Your task to perform on an android device: Search for the best rated headphones on Amazon Image 0: 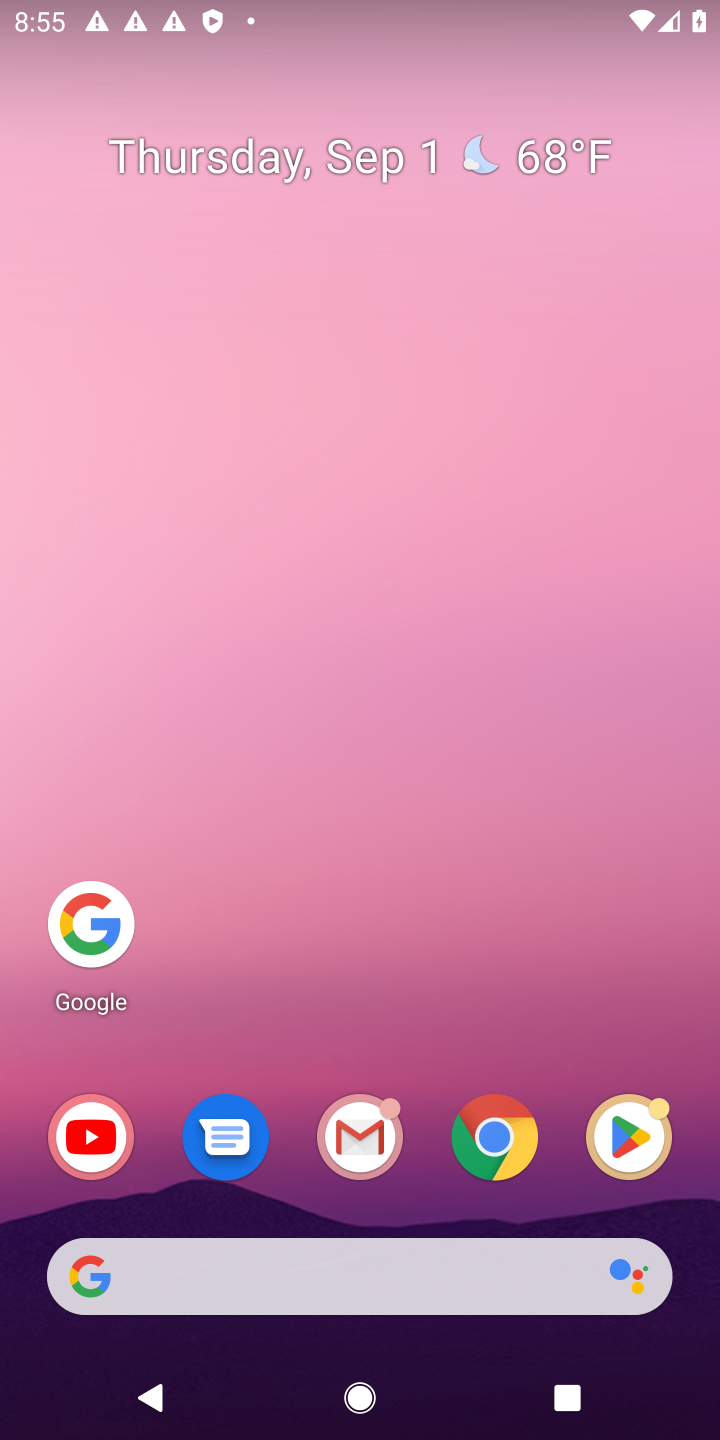
Step 0: click (95, 921)
Your task to perform on an android device: Search for the best rated headphones on Amazon Image 1: 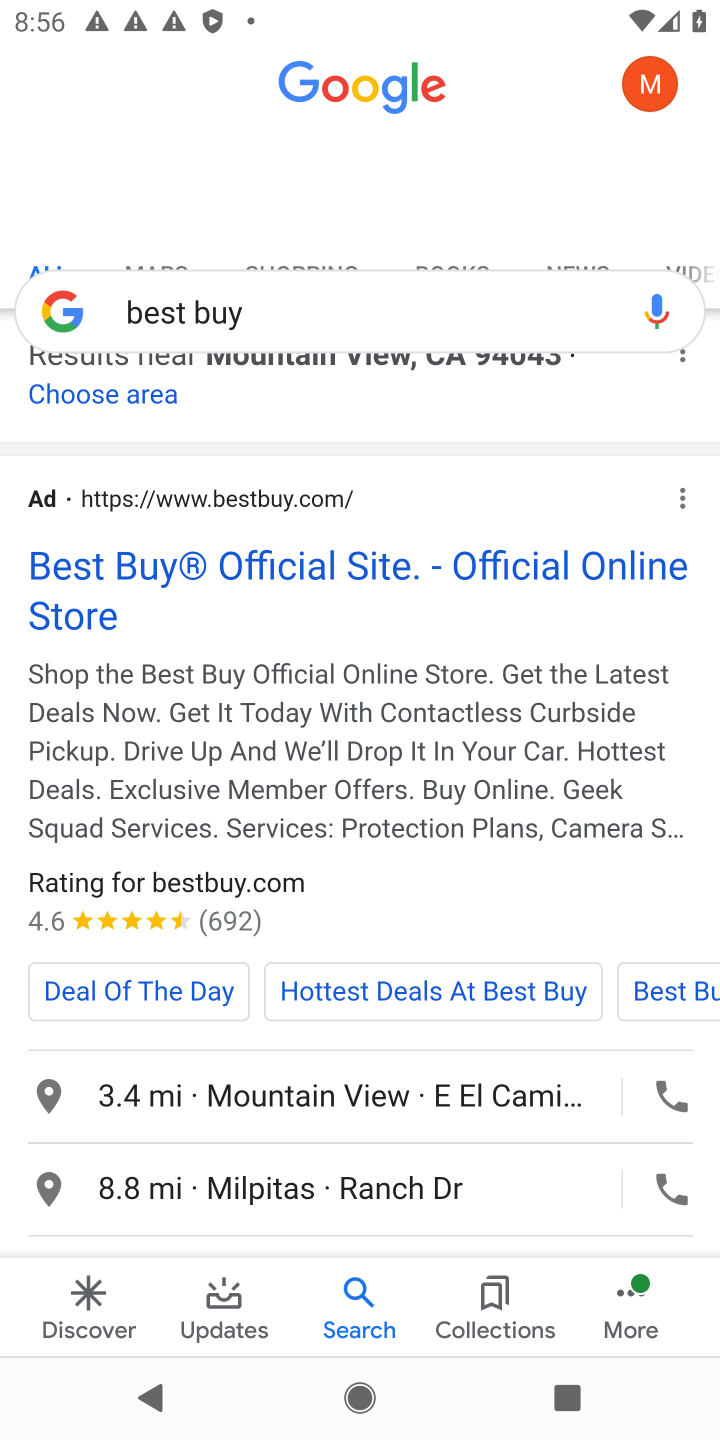
Step 1: click (67, 307)
Your task to perform on an android device: Search for the best rated headphones on Amazon Image 2: 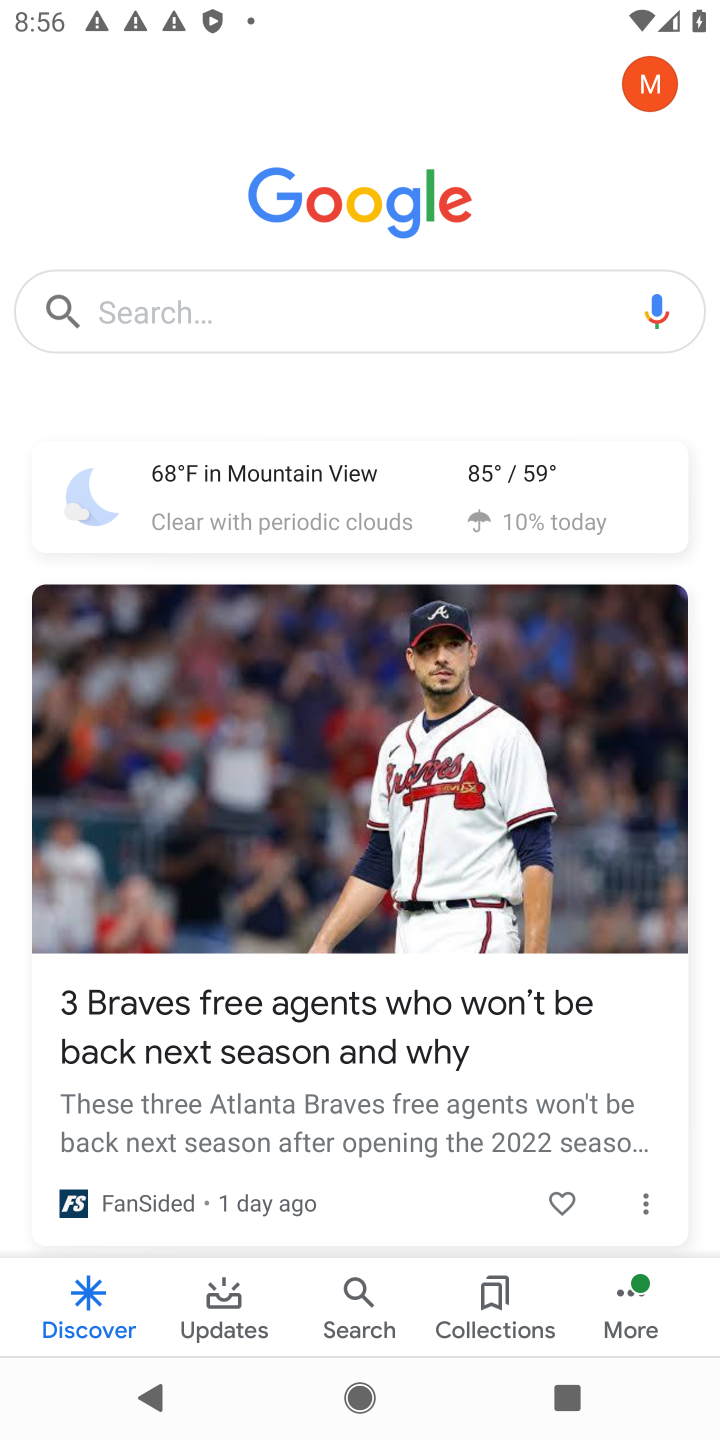
Step 2: click (130, 311)
Your task to perform on an android device: Search for the best rated headphones on Amazon Image 3: 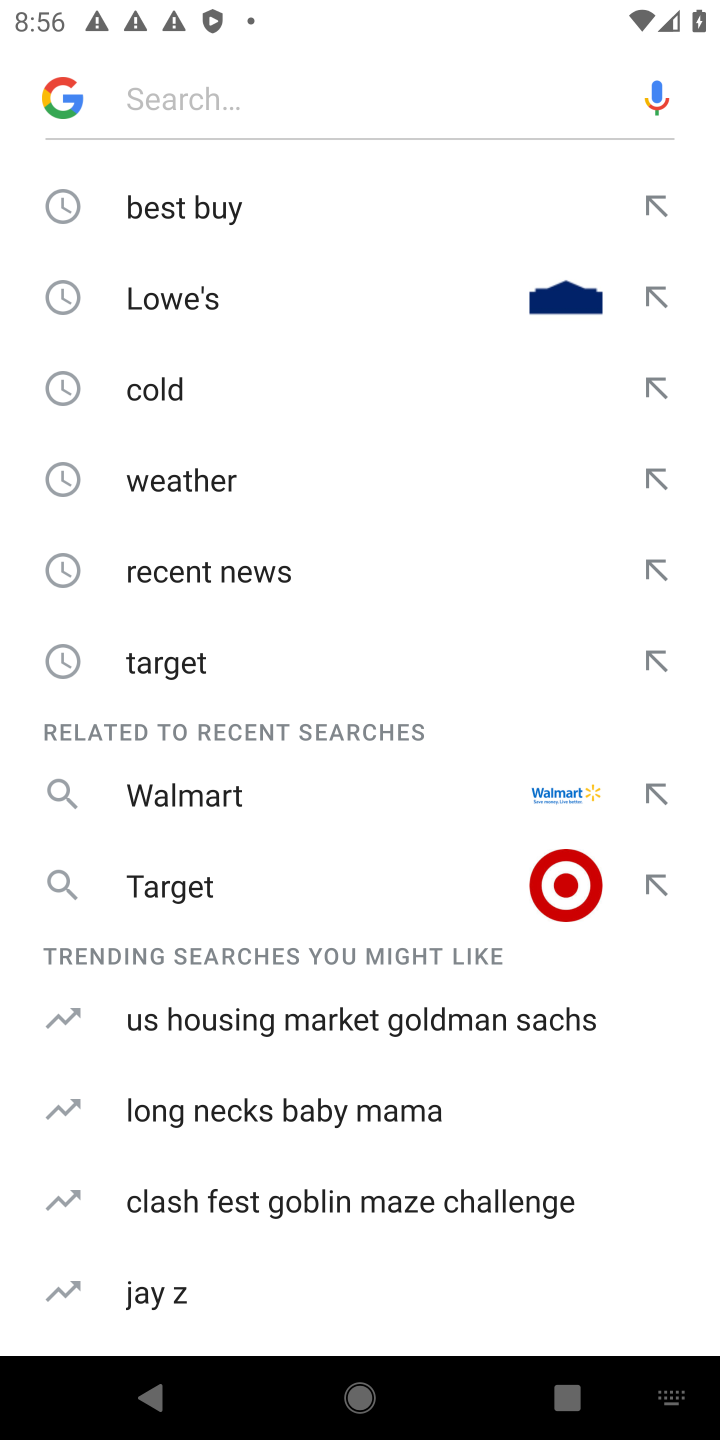
Step 3: type "amazon"
Your task to perform on an android device: Search for the best rated headphones on Amazon Image 4: 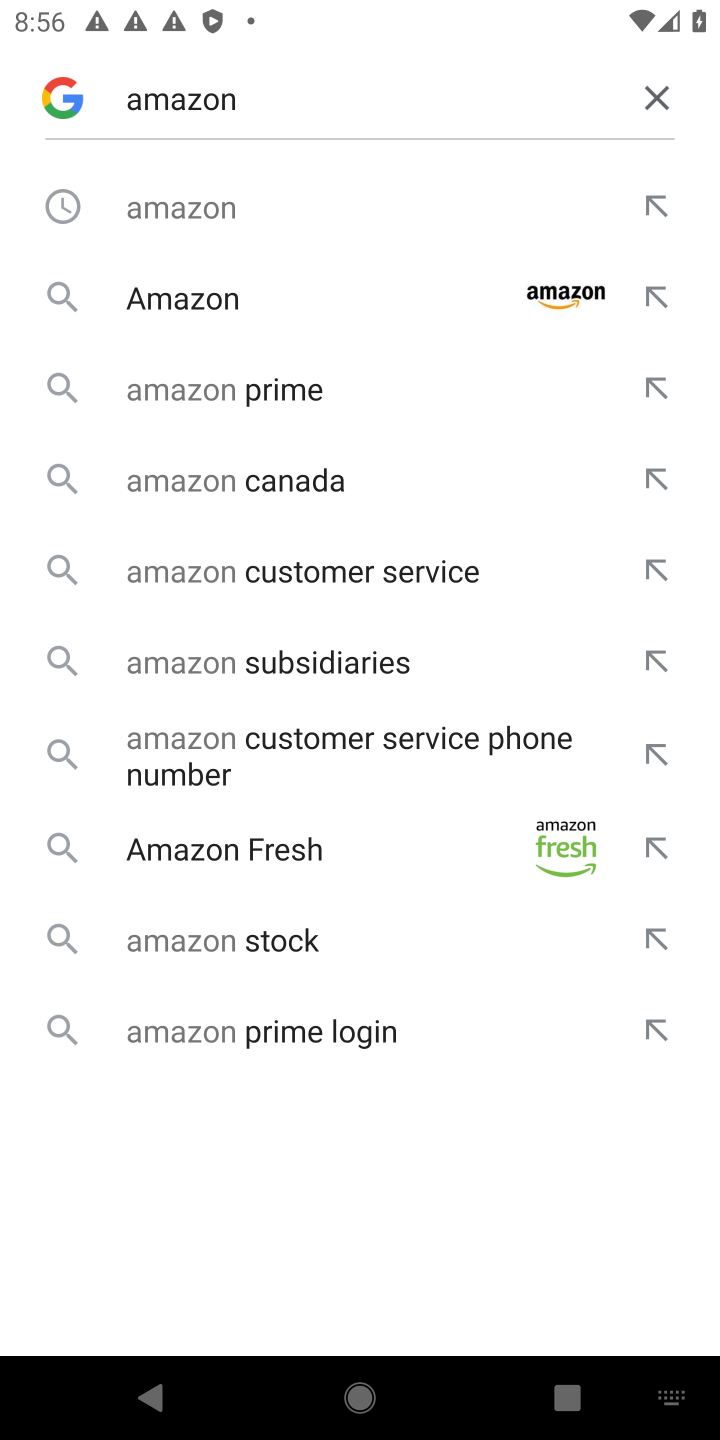
Step 4: click (197, 294)
Your task to perform on an android device: Search for the best rated headphones on Amazon Image 5: 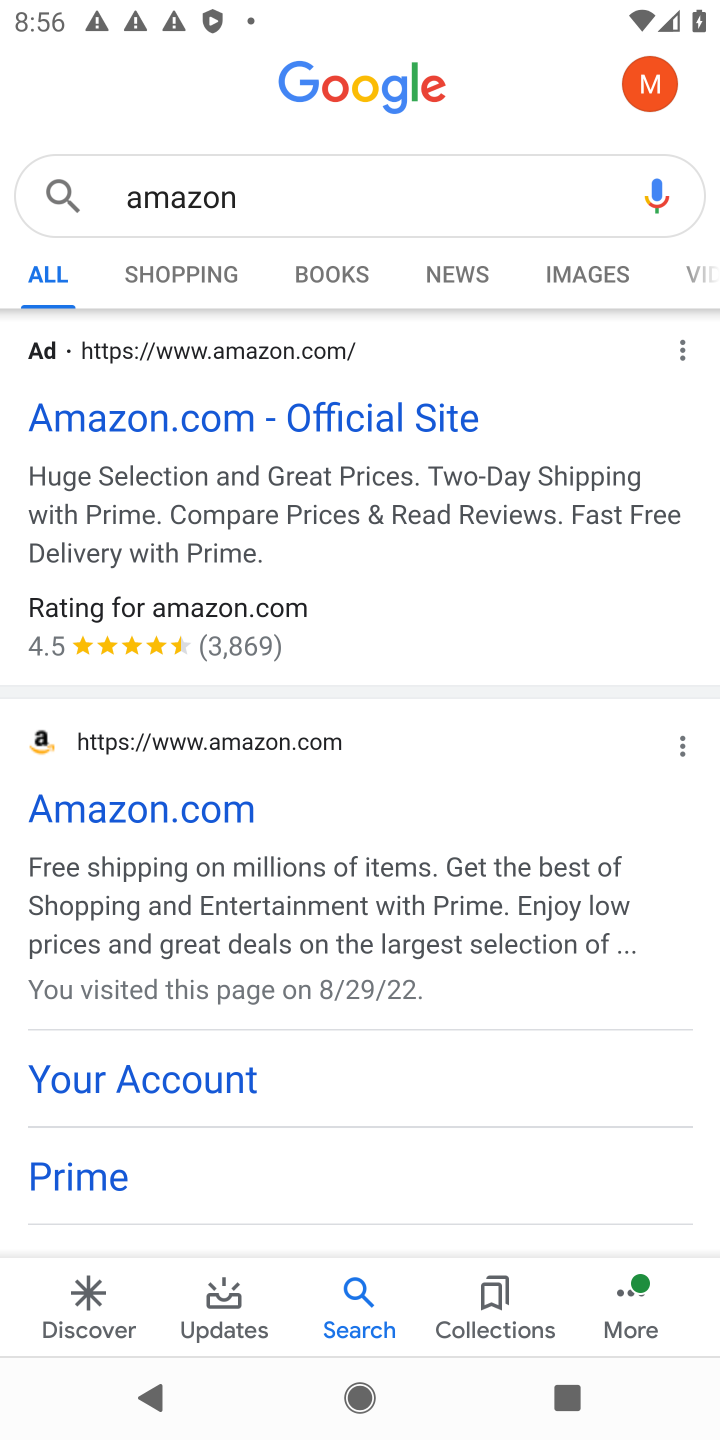
Step 5: click (198, 812)
Your task to perform on an android device: Search for the best rated headphones on Amazon Image 6: 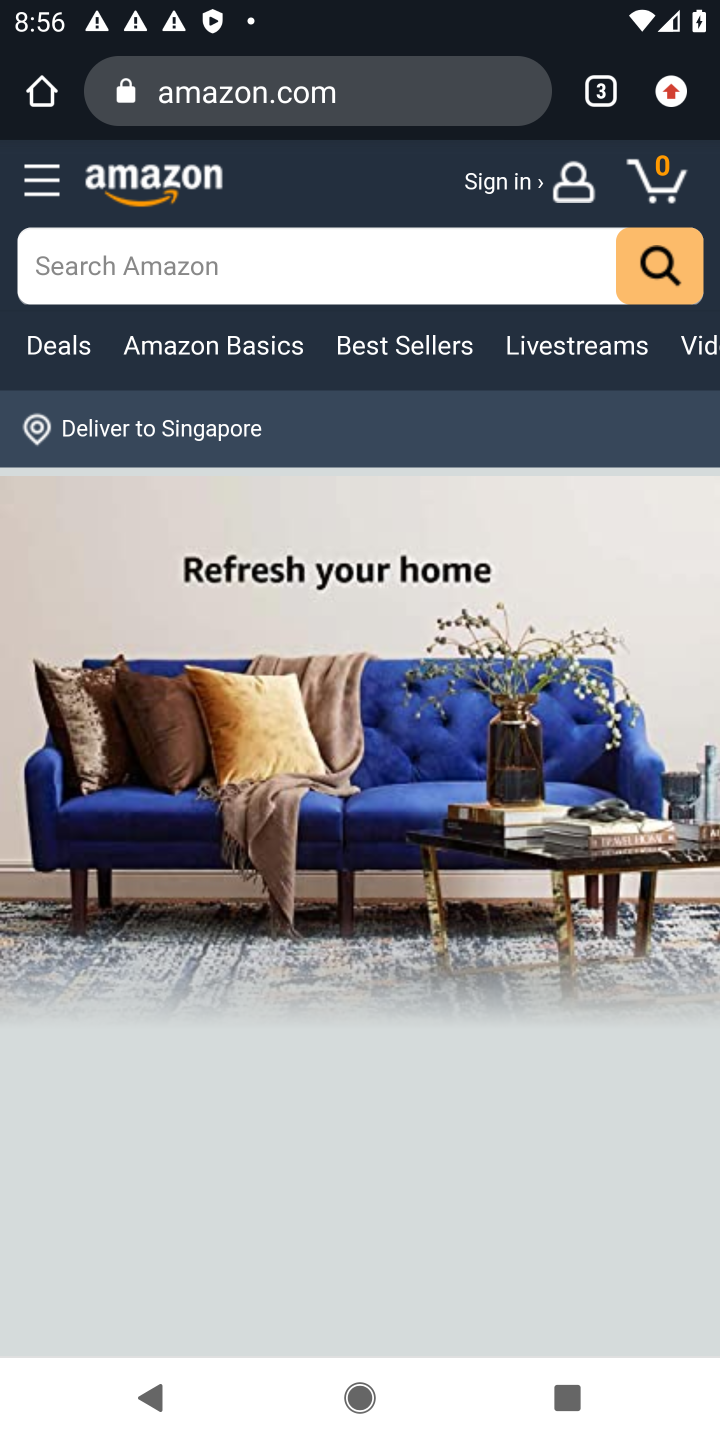
Step 6: click (161, 277)
Your task to perform on an android device: Search for the best rated headphones on Amazon Image 7: 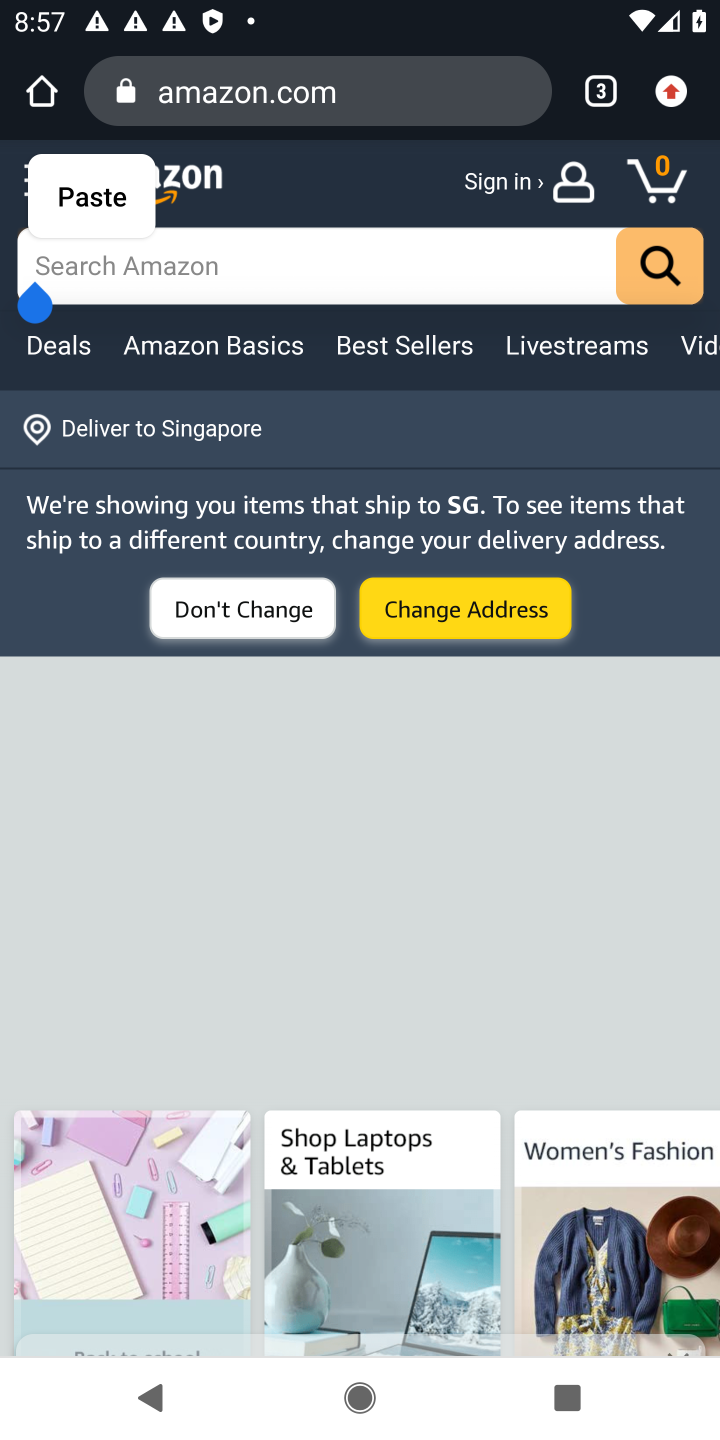
Step 7: type "best rated headphones "
Your task to perform on an android device: Search for the best rated headphones on Amazon Image 8: 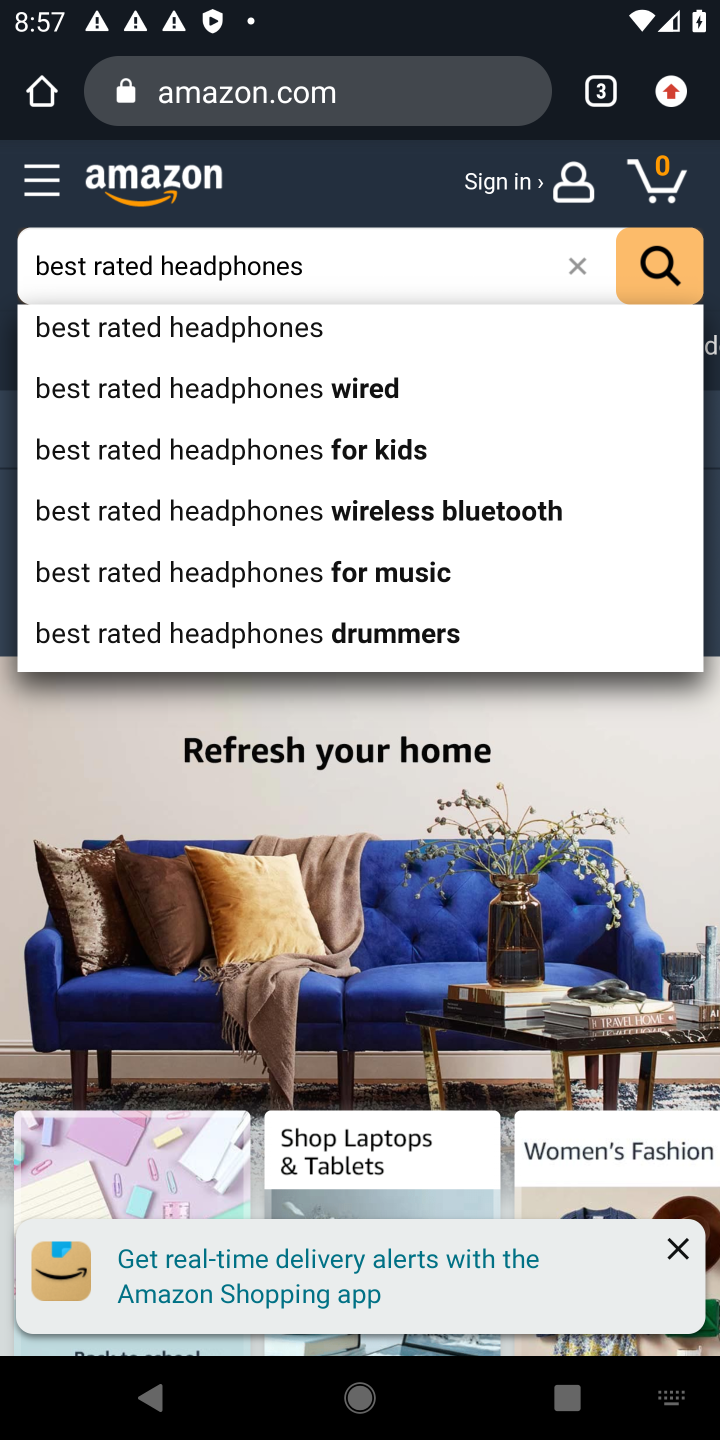
Step 8: click (202, 325)
Your task to perform on an android device: Search for the best rated headphones on Amazon Image 9: 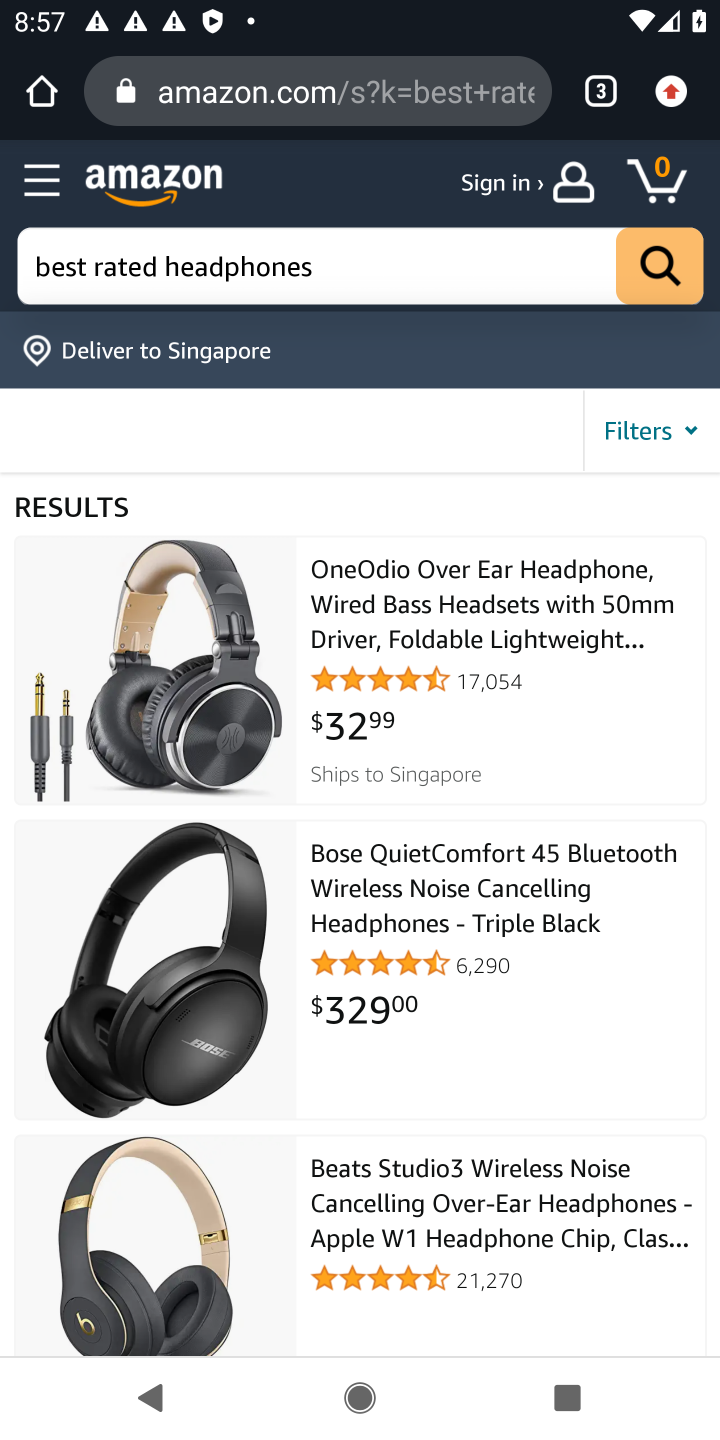
Step 9: task complete